Your task to perform on an android device: turn off improve location accuracy Image 0: 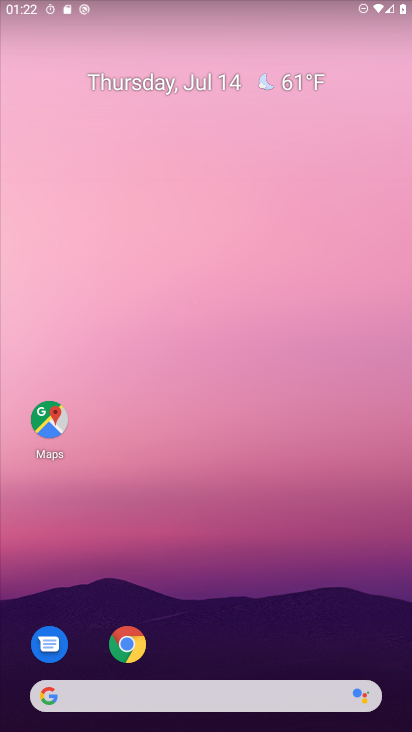
Step 0: drag from (253, 627) to (265, 228)
Your task to perform on an android device: turn off improve location accuracy Image 1: 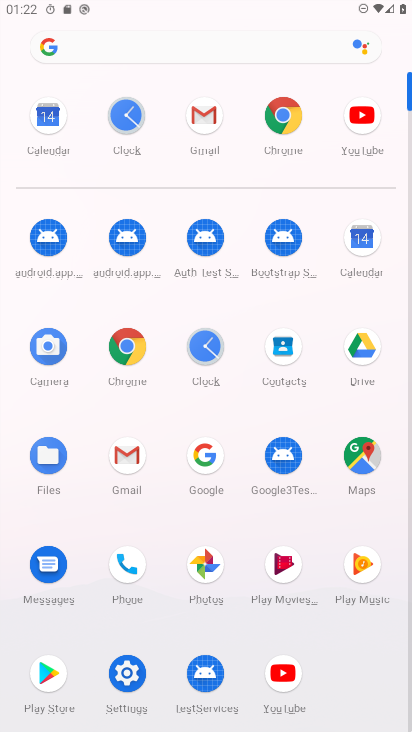
Step 1: click (138, 672)
Your task to perform on an android device: turn off improve location accuracy Image 2: 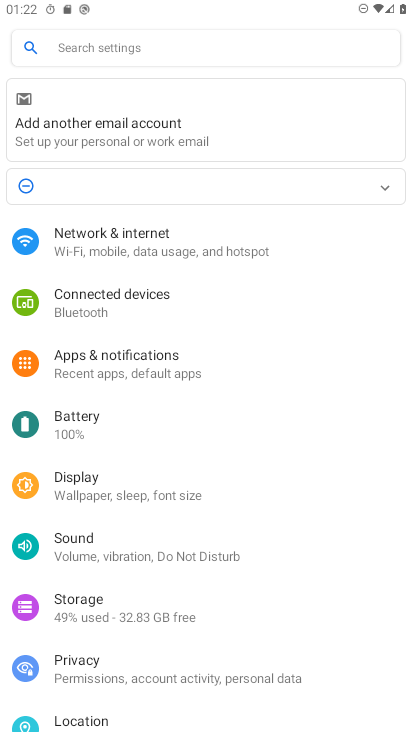
Step 2: drag from (208, 615) to (247, 173)
Your task to perform on an android device: turn off improve location accuracy Image 3: 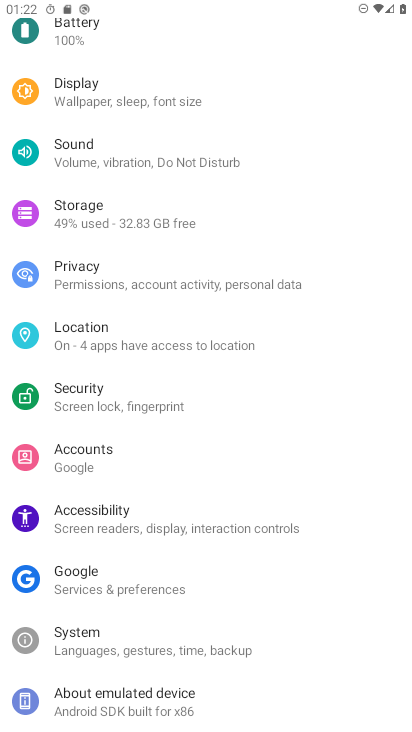
Step 3: drag from (255, 623) to (189, 478)
Your task to perform on an android device: turn off improve location accuracy Image 4: 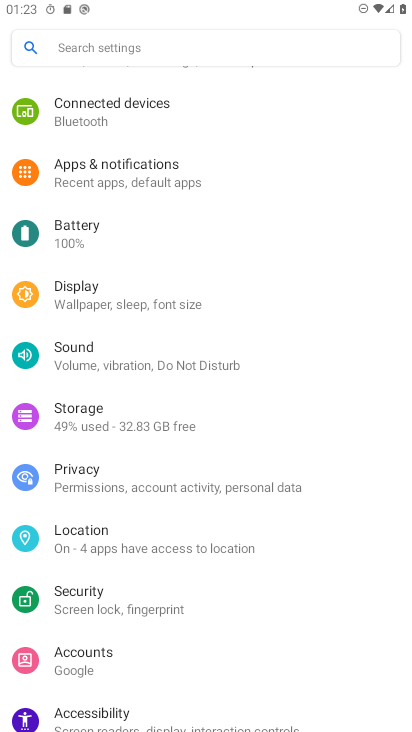
Step 4: click (136, 493)
Your task to perform on an android device: turn off improve location accuracy Image 5: 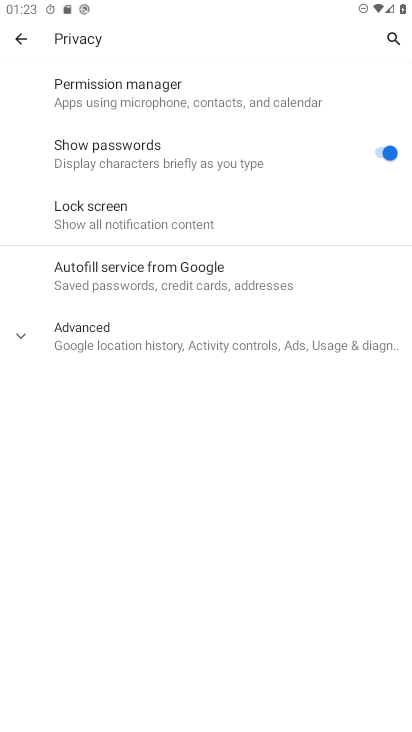
Step 5: click (10, 32)
Your task to perform on an android device: turn off improve location accuracy Image 6: 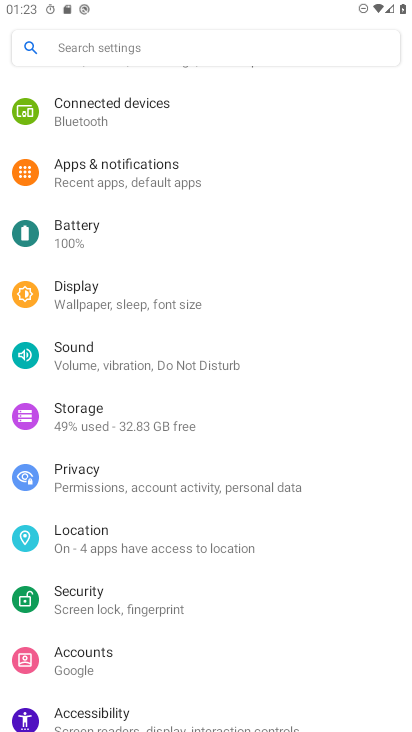
Step 6: click (120, 537)
Your task to perform on an android device: turn off improve location accuracy Image 7: 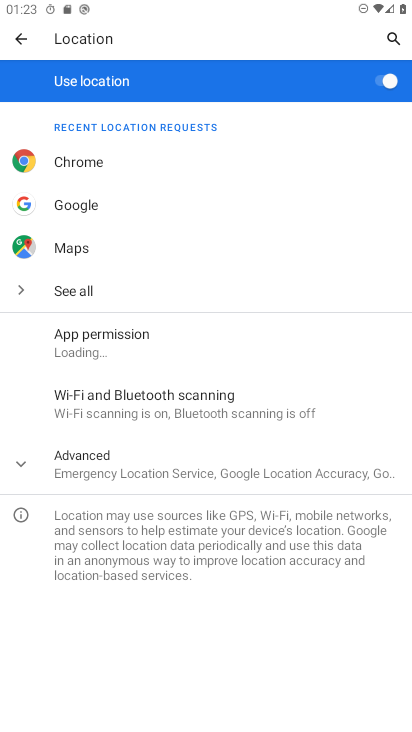
Step 7: click (105, 470)
Your task to perform on an android device: turn off improve location accuracy Image 8: 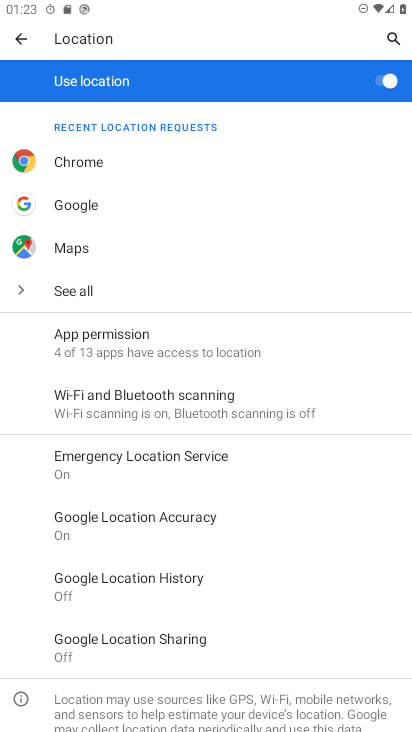
Step 8: click (192, 517)
Your task to perform on an android device: turn off improve location accuracy Image 9: 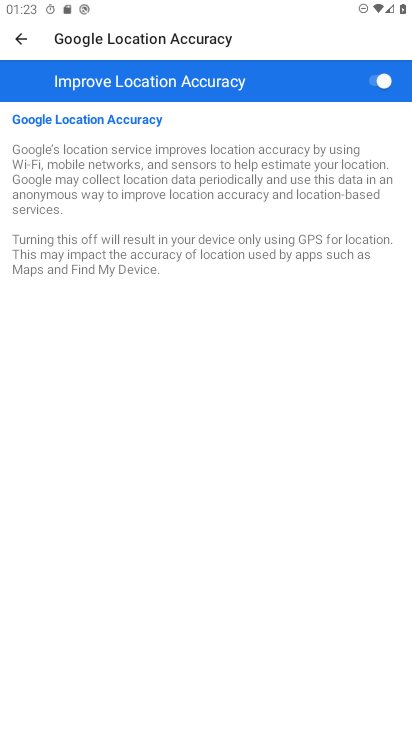
Step 9: click (374, 75)
Your task to perform on an android device: turn off improve location accuracy Image 10: 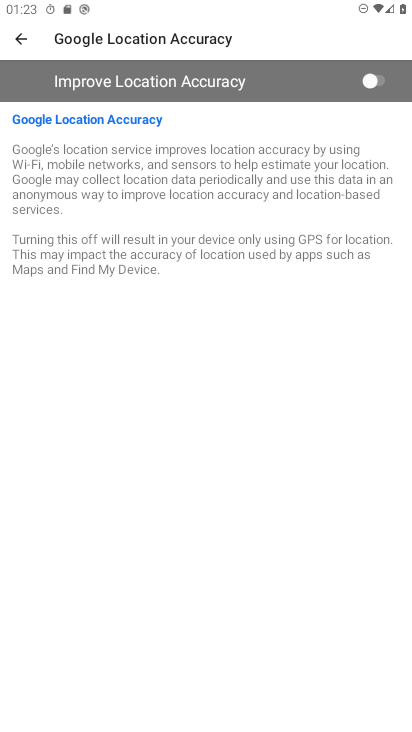
Step 10: task complete